Your task to perform on an android device: install app "Google Pay: Save, Pay, Manage" Image 0: 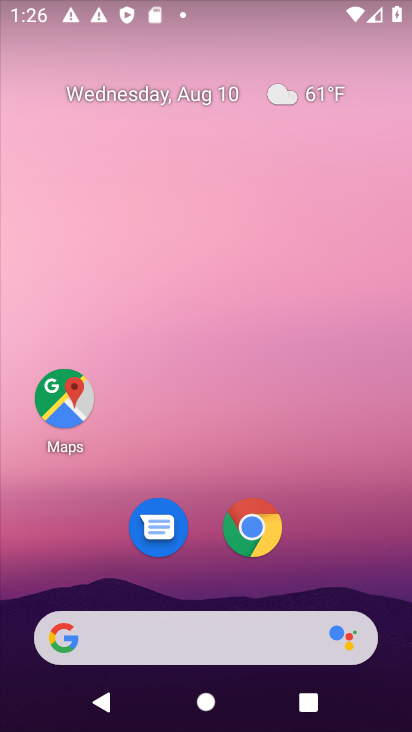
Step 0: drag from (285, 569) to (278, 110)
Your task to perform on an android device: install app "Google Pay: Save, Pay, Manage" Image 1: 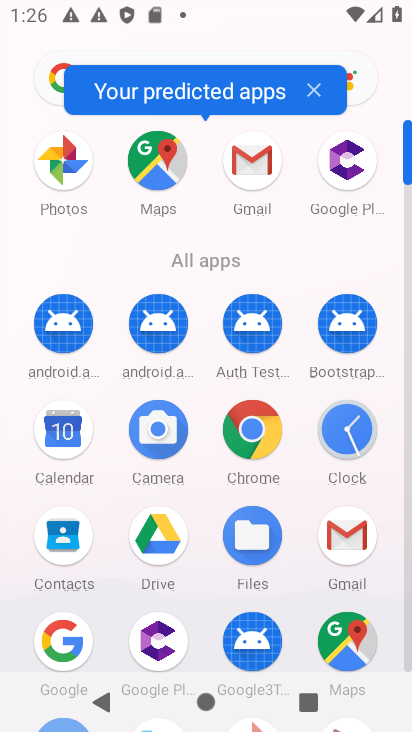
Step 1: drag from (180, 679) to (226, 301)
Your task to perform on an android device: install app "Google Pay: Save, Pay, Manage" Image 2: 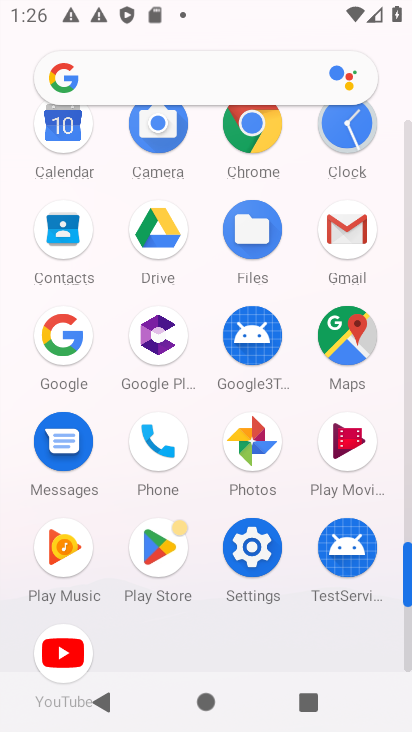
Step 2: click (162, 552)
Your task to perform on an android device: install app "Google Pay: Save, Pay, Manage" Image 3: 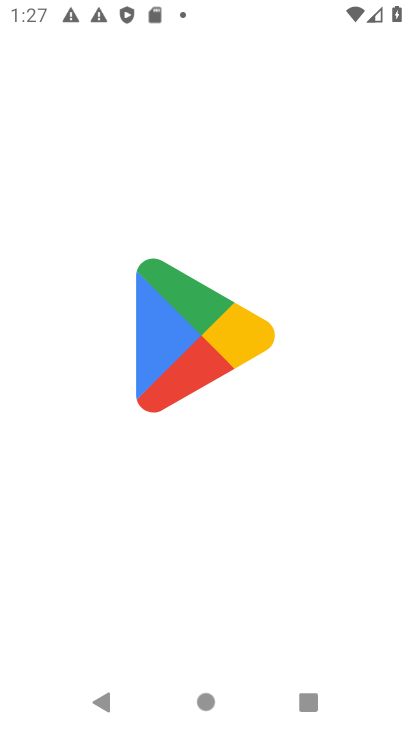
Step 3: task complete